Your task to perform on an android device: turn off notifications in google photos Image 0: 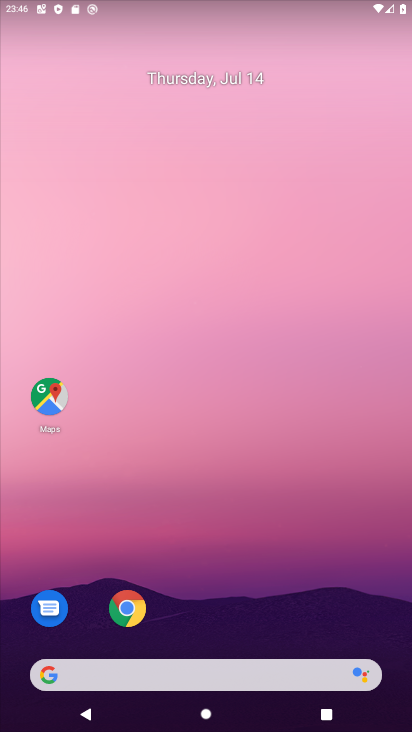
Step 0: drag from (18, 711) to (222, 5)
Your task to perform on an android device: turn off notifications in google photos Image 1: 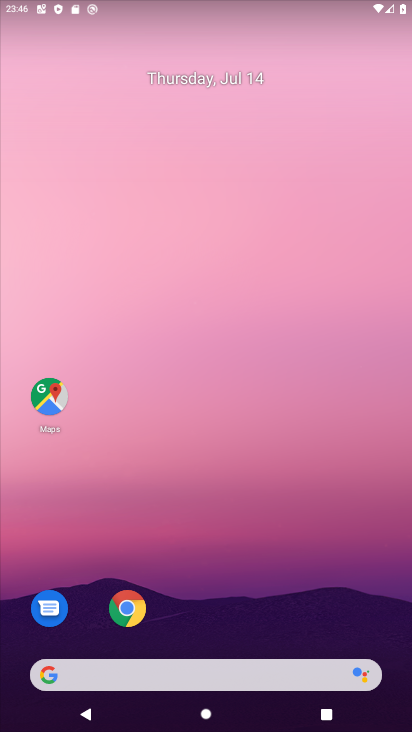
Step 1: click (30, 716)
Your task to perform on an android device: turn off notifications in google photos Image 2: 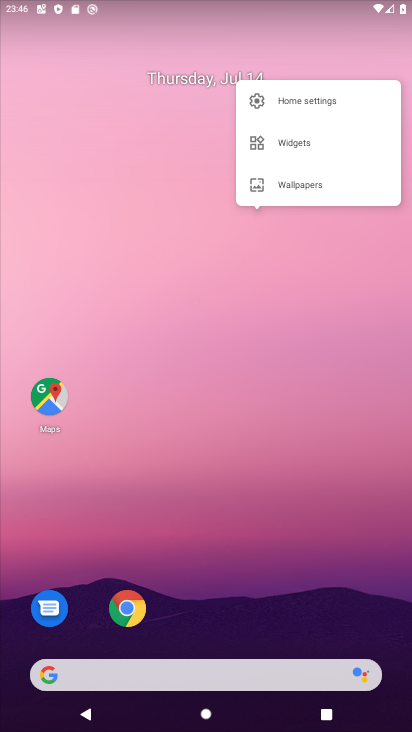
Step 2: drag from (33, 705) to (312, 90)
Your task to perform on an android device: turn off notifications in google photos Image 3: 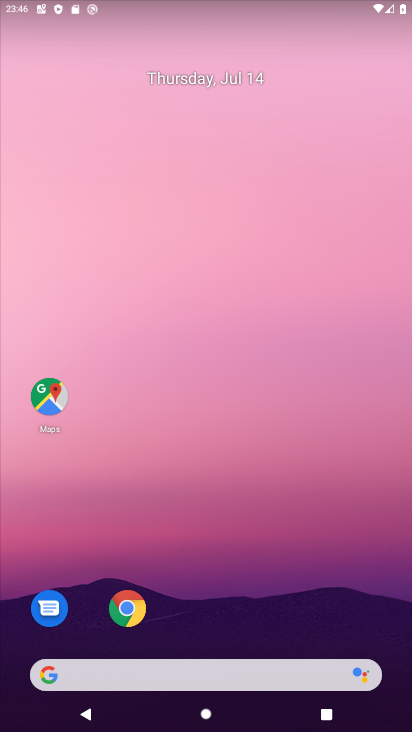
Step 3: drag from (59, 380) to (125, 9)
Your task to perform on an android device: turn off notifications in google photos Image 4: 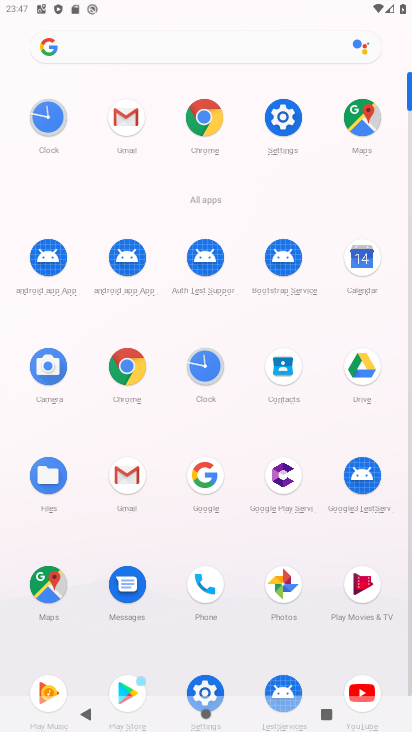
Step 4: click (281, 574)
Your task to perform on an android device: turn off notifications in google photos Image 5: 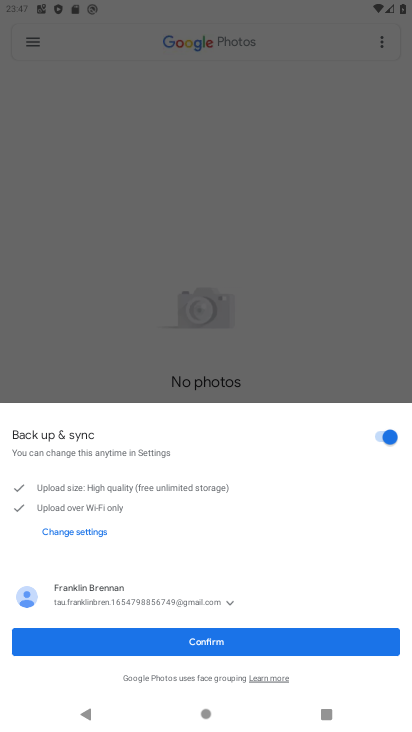
Step 5: click (173, 643)
Your task to perform on an android device: turn off notifications in google photos Image 6: 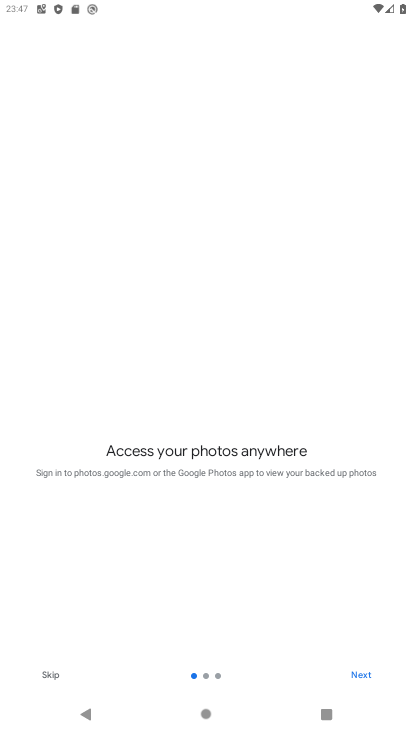
Step 6: click (367, 672)
Your task to perform on an android device: turn off notifications in google photos Image 7: 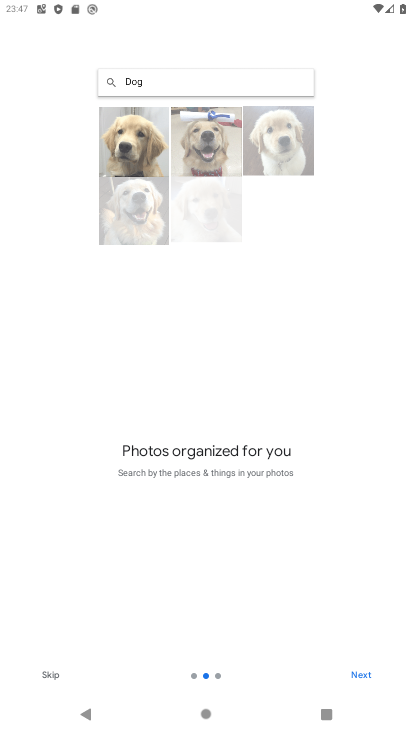
Step 7: click (355, 676)
Your task to perform on an android device: turn off notifications in google photos Image 8: 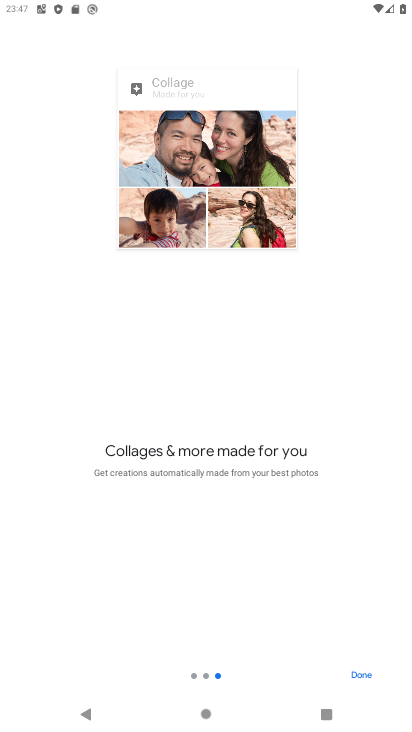
Step 8: click (368, 670)
Your task to perform on an android device: turn off notifications in google photos Image 9: 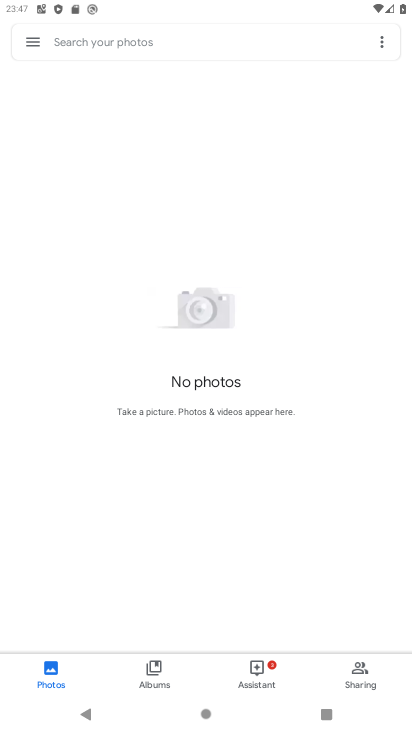
Step 9: click (42, 31)
Your task to perform on an android device: turn off notifications in google photos Image 10: 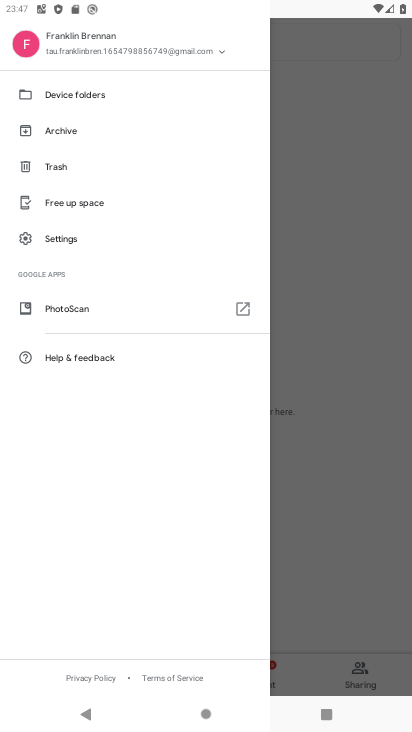
Step 10: click (66, 235)
Your task to perform on an android device: turn off notifications in google photos Image 11: 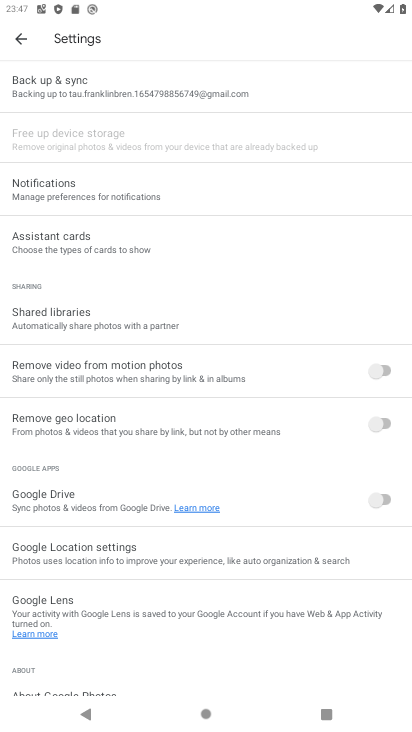
Step 11: click (58, 192)
Your task to perform on an android device: turn off notifications in google photos Image 12: 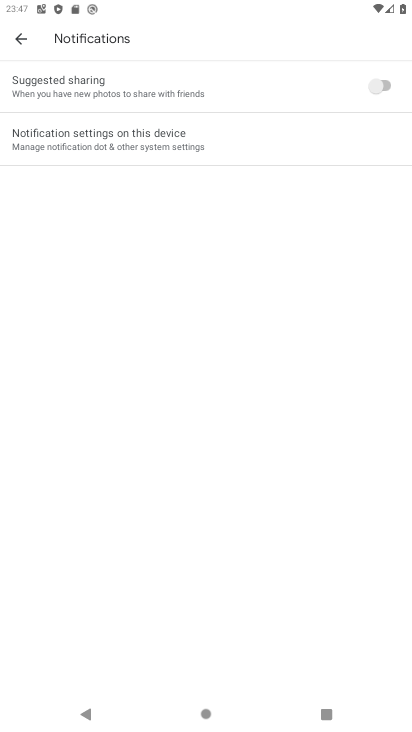
Step 12: click (104, 141)
Your task to perform on an android device: turn off notifications in google photos Image 13: 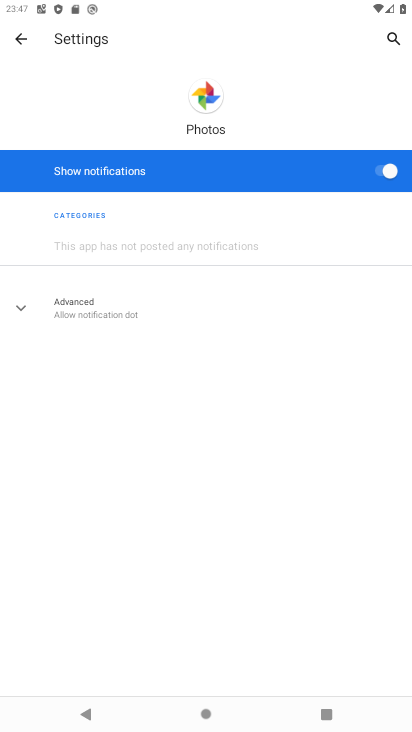
Step 13: click (382, 168)
Your task to perform on an android device: turn off notifications in google photos Image 14: 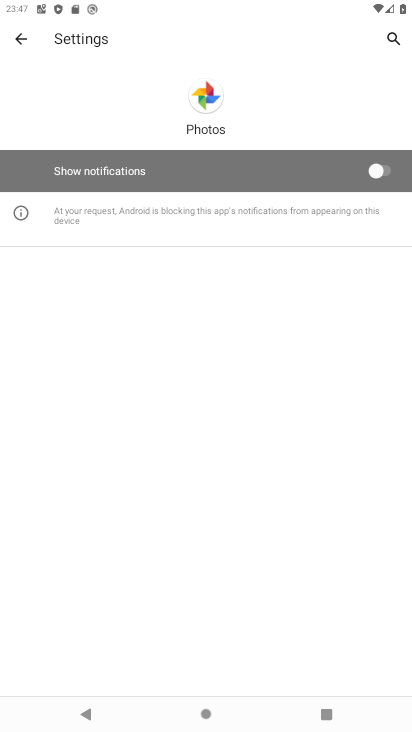
Step 14: task complete